Your task to perform on an android device: Go to notification settings Image 0: 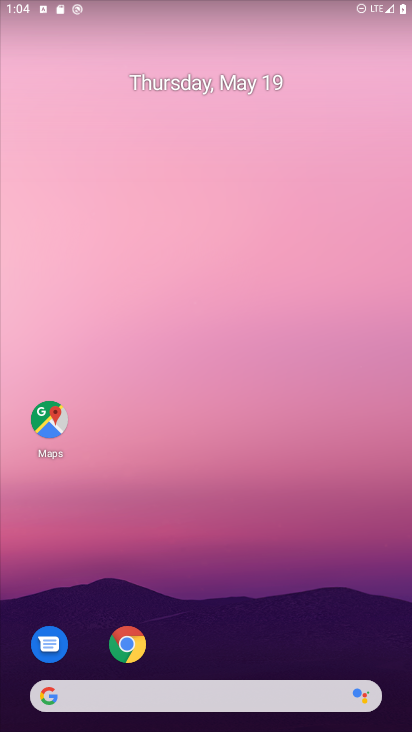
Step 0: drag from (369, 635) to (267, 9)
Your task to perform on an android device: Go to notification settings Image 1: 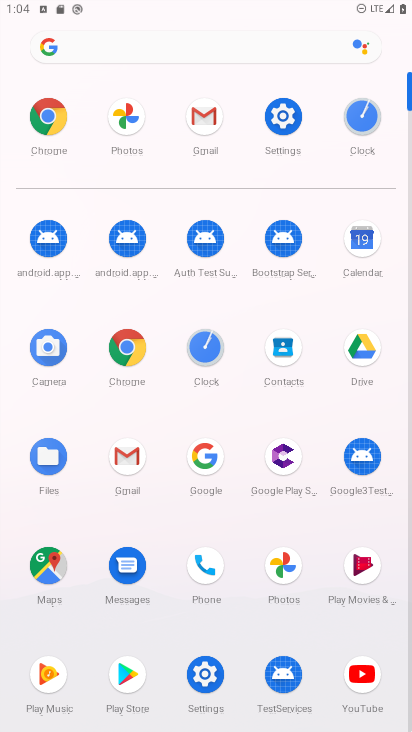
Step 1: click (211, 678)
Your task to perform on an android device: Go to notification settings Image 2: 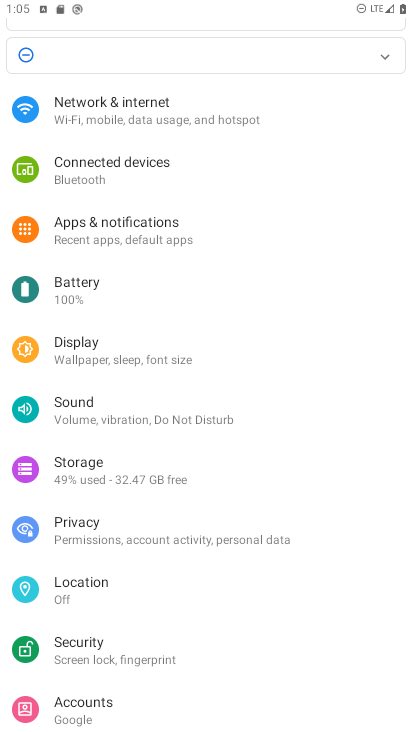
Step 2: click (145, 235)
Your task to perform on an android device: Go to notification settings Image 3: 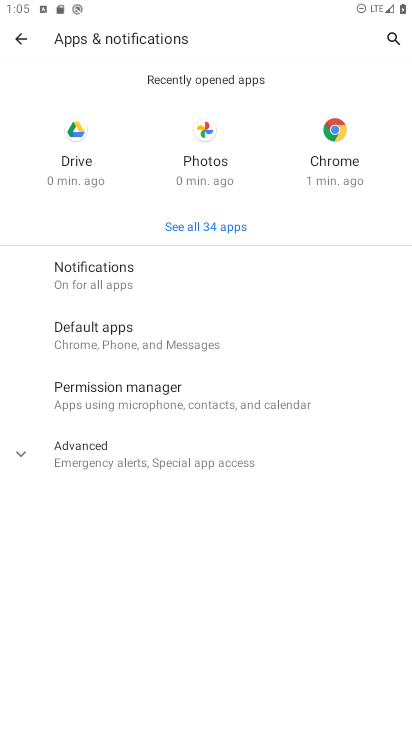
Step 3: click (105, 268)
Your task to perform on an android device: Go to notification settings Image 4: 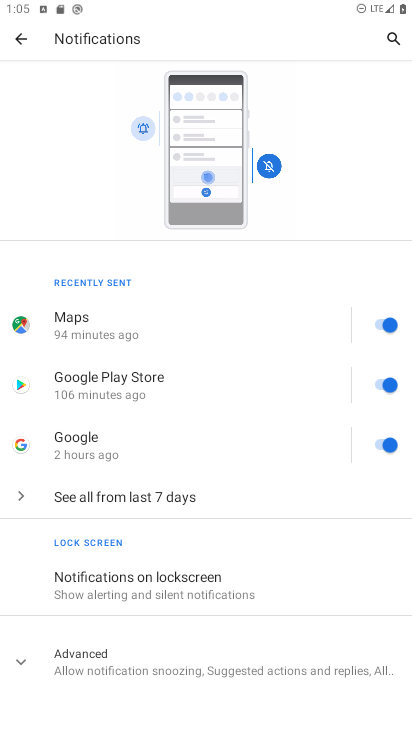
Step 4: task complete